Your task to perform on an android device: Is it going to rain this weekend? Image 0: 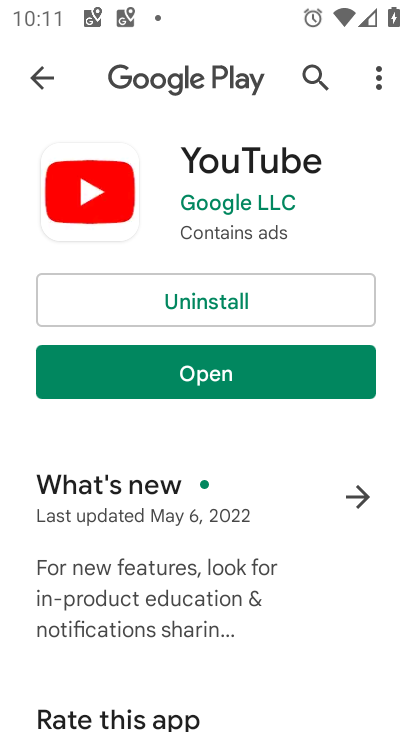
Step 0: press home button
Your task to perform on an android device: Is it going to rain this weekend? Image 1: 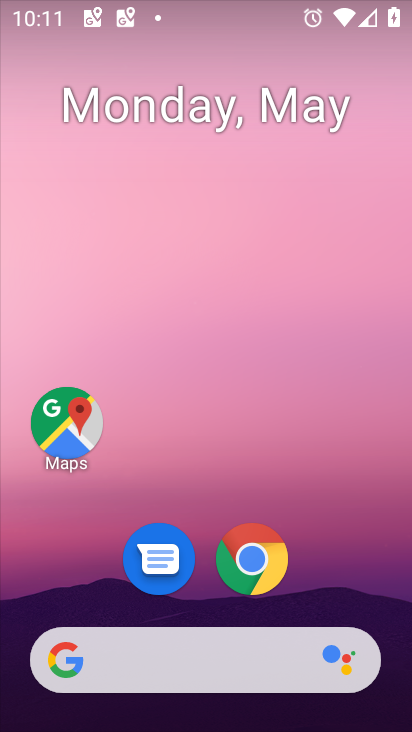
Step 1: drag from (383, 636) to (351, 161)
Your task to perform on an android device: Is it going to rain this weekend? Image 2: 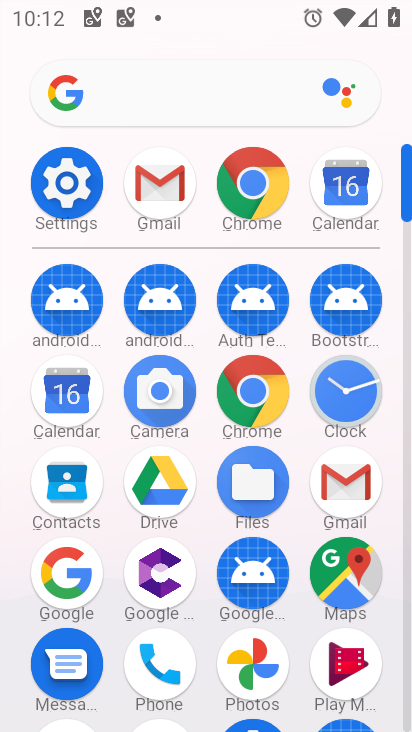
Step 2: click (66, 575)
Your task to perform on an android device: Is it going to rain this weekend? Image 3: 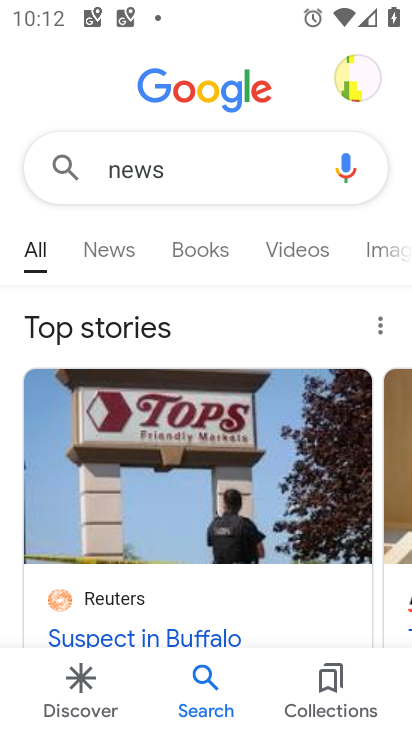
Step 3: press back button
Your task to perform on an android device: Is it going to rain this weekend? Image 4: 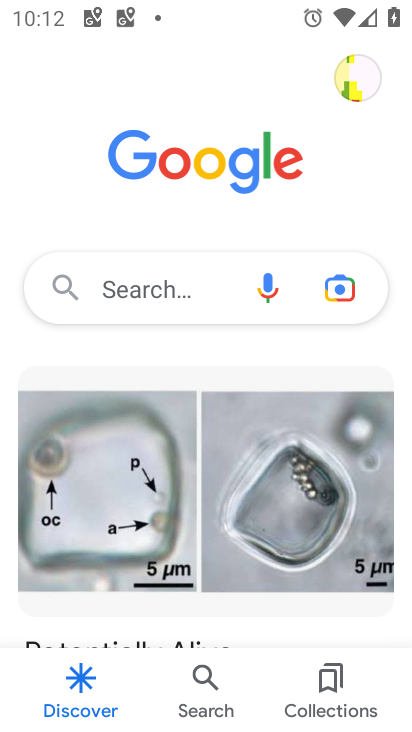
Step 4: click (118, 288)
Your task to perform on an android device: Is it going to rain this weekend? Image 5: 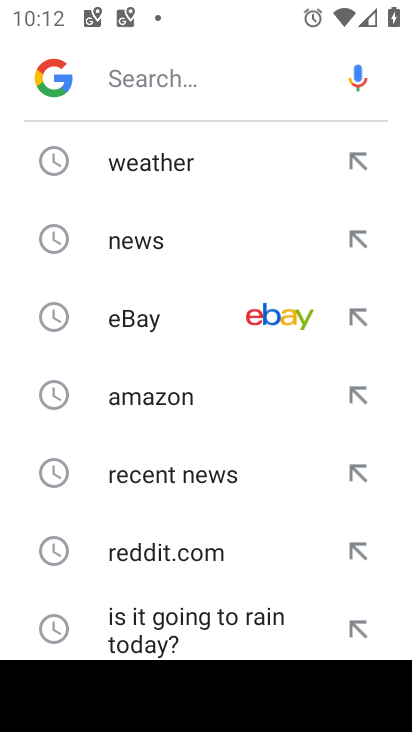
Step 5: drag from (163, 633) to (132, 301)
Your task to perform on an android device: Is it going to rain this weekend? Image 6: 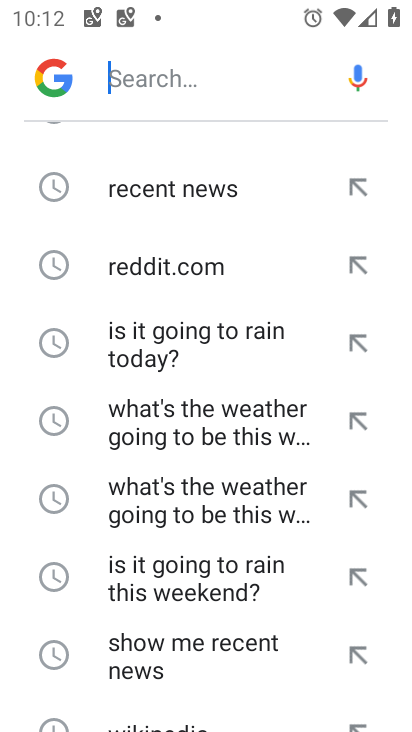
Step 6: click (242, 569)
Your task to perform on an android device: Is it going to rain this weekend? Image 7: 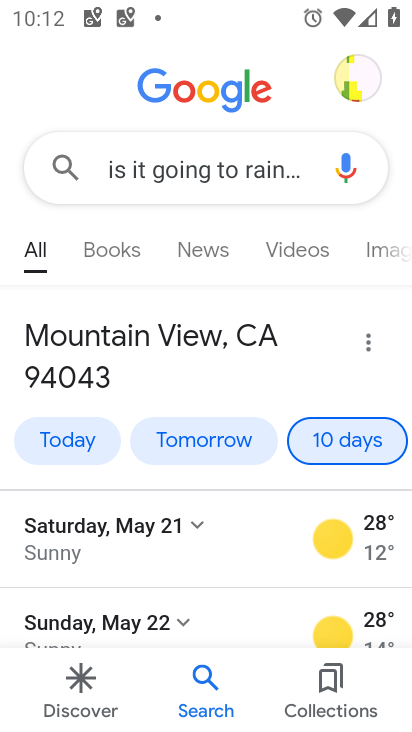
Step 7: task complete